Your task to perform on an android device: Go to CNN.com Image 0: 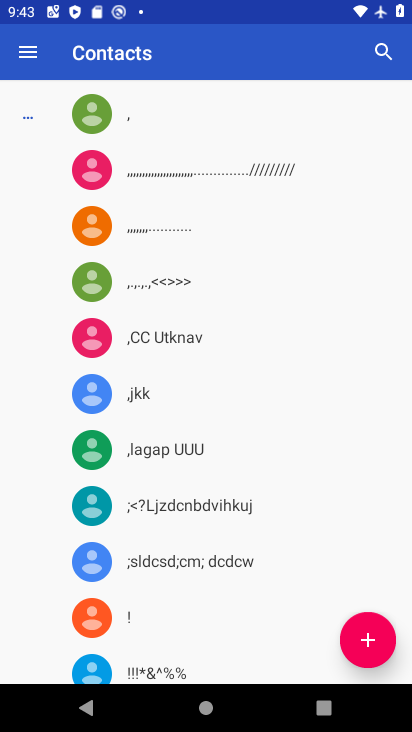
Step 0: press home button
Your task to perform on an android device: Go to CNN.com Image 1: 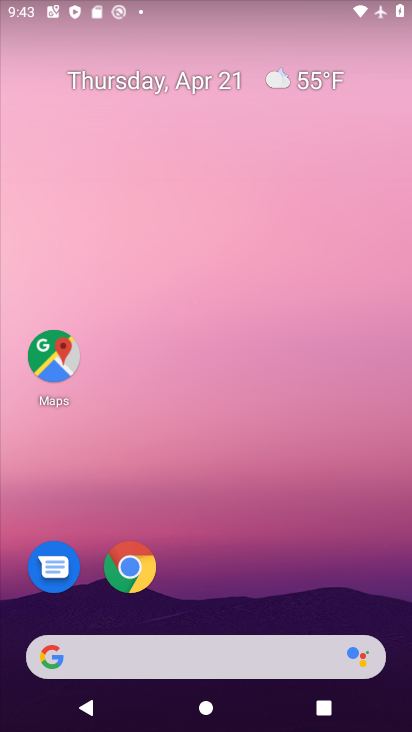
Step 1: click (126, 566)
Your task to perform on an android device: Go to CNN.com Image 2: 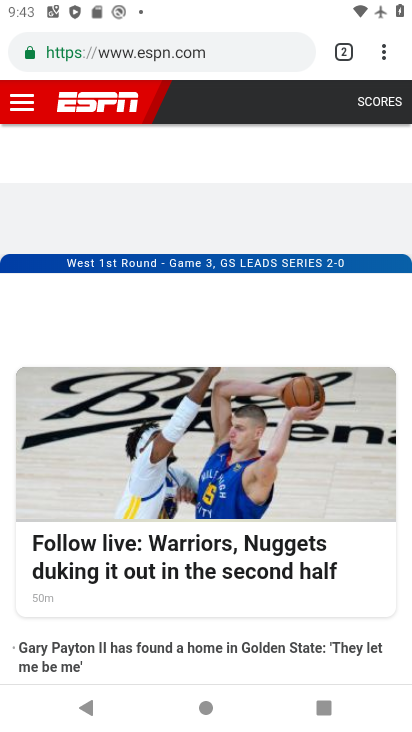
Step 2: click (216, 49)
Your task to perform on an android device: Go to CNN.com Image 3: 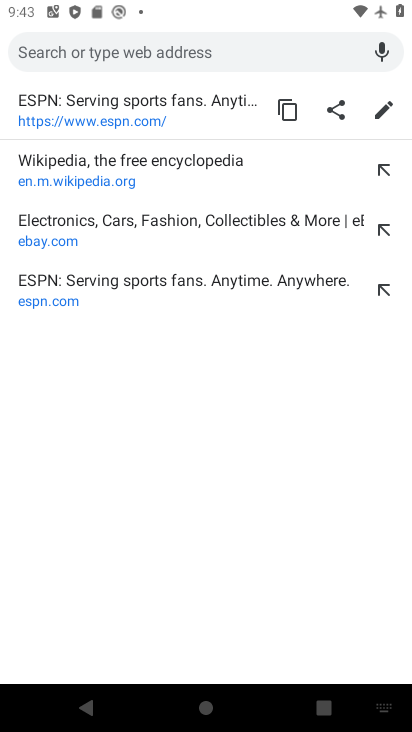
Step 3: type "cnn.com"
Your task to perform on an android device: Go to CNN.com Image 4: 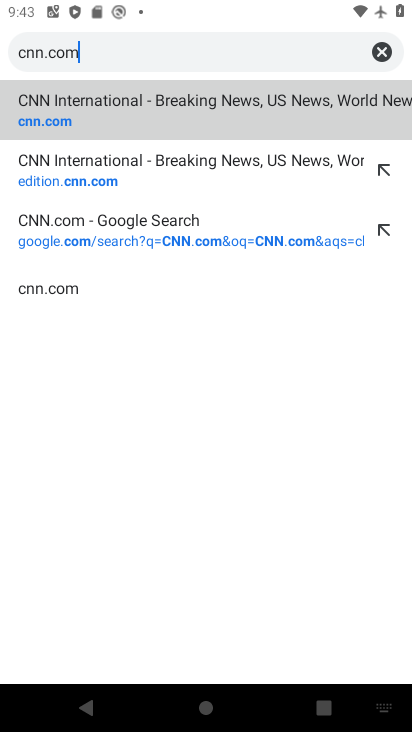
Step 4: click (81, 109)
Your task to perform on an android device: Go to CNN.com Image 5: 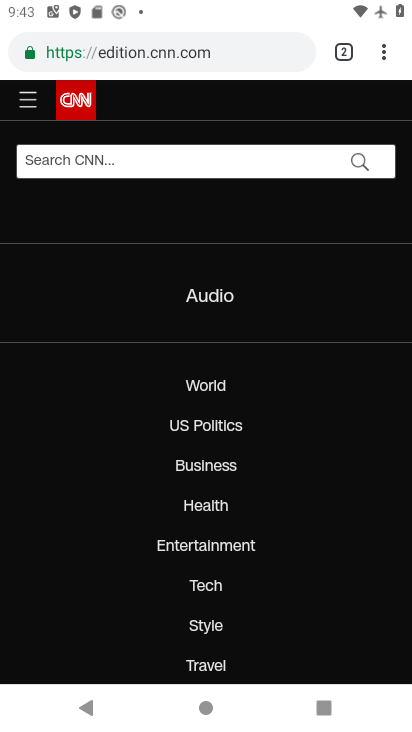
Step 5: task complete